Your task to perform on an android device: Go to Maps Image 0: 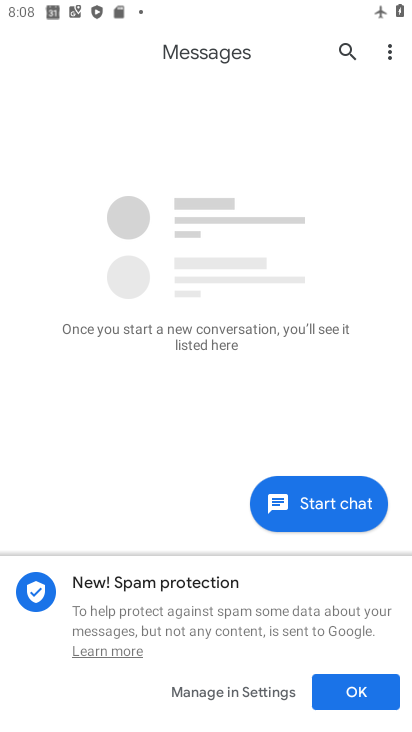
Step 0: press home button
Your task to perform on an android device: Go to Maps Image 1: 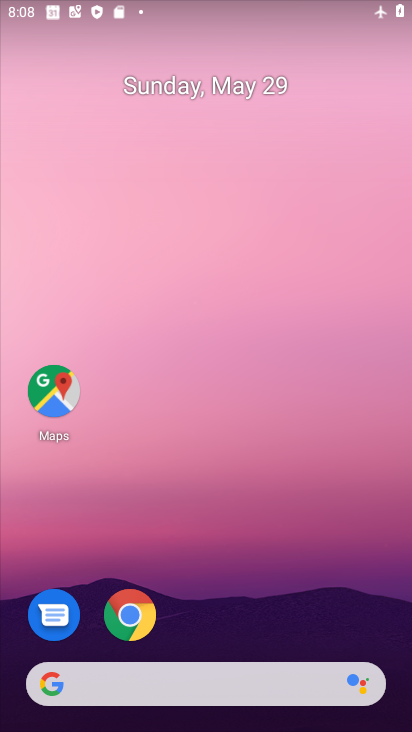
Step 1: click (71, 381)
Your task to perform on an android device: Go to Maps Image 2: 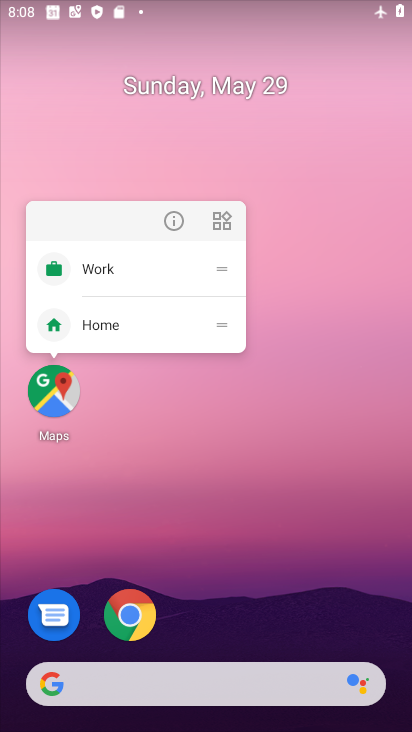
Step 2: click (71, 381)
Your task to perform on an android device: Go to Maps Image 3: 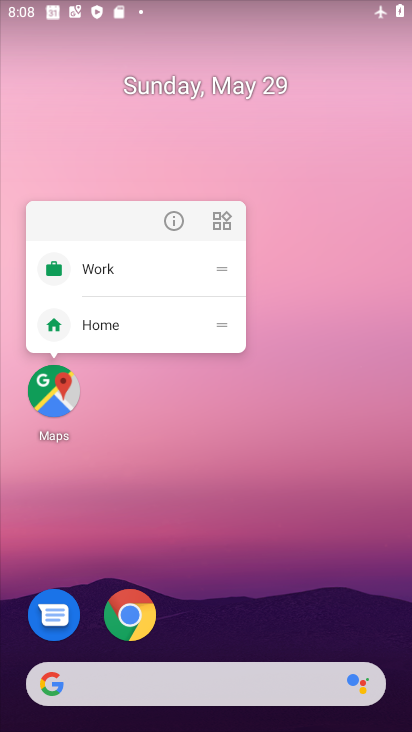
Step 3: click (43, 399)
Your task to perform on an android device: Go to Maps Image 4: 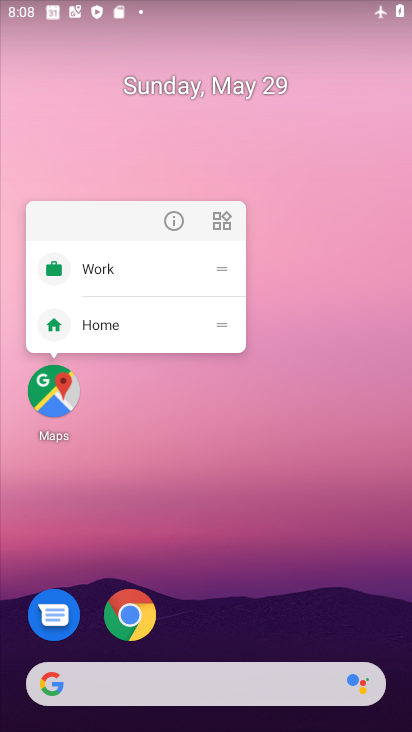
Step 4: click (44, 399)
Your task to perform on an android device: Go to Maps Image 5: 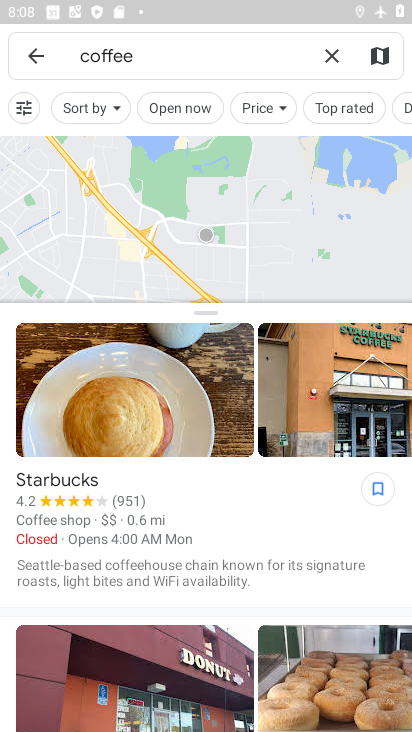
Step 5: click (335, 56)
Your task to perform on an android device: Go to Maps Image 6: 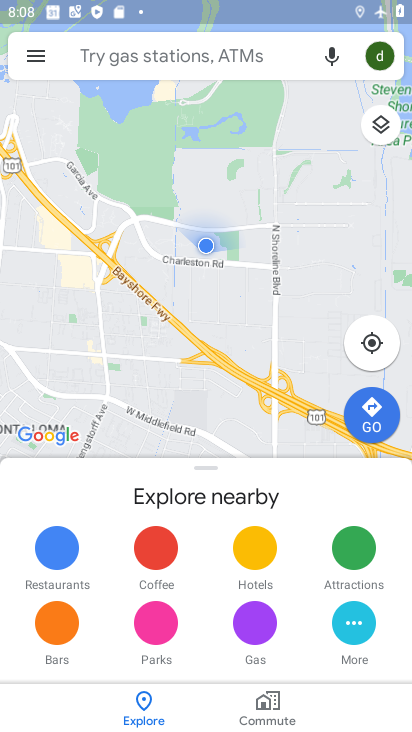
Step 6: task complete